Your task to perform on an android device: Open Google Maps and go to "Timeline" Image 0: 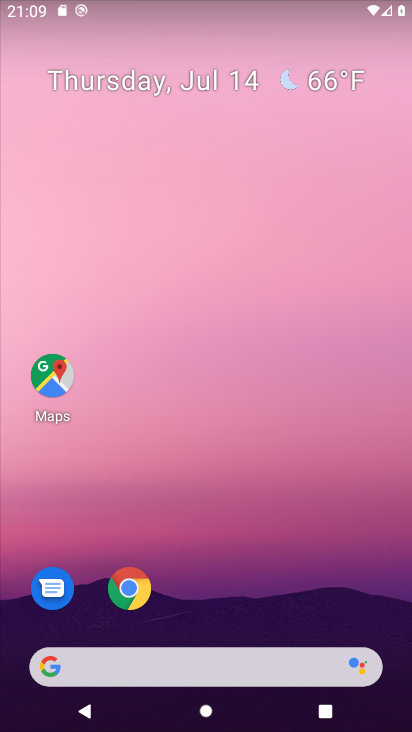
Step 0: drag from (362, 604) to (392, 79)
Your task to perform on an android device: Open Google Maps and go to "Timeline" Image 1: 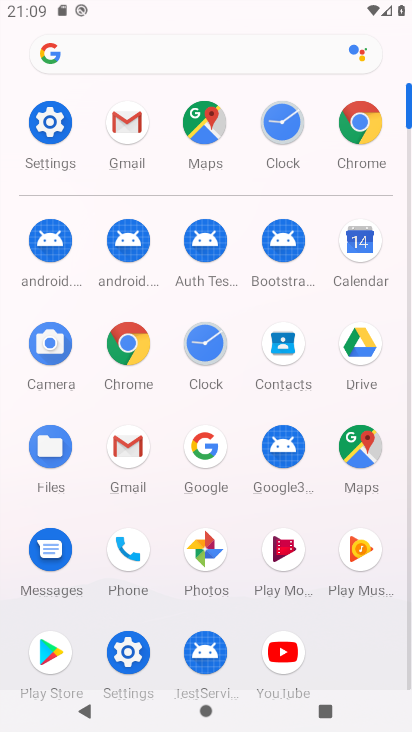
Step 1: click (359, 454)
Your task to perform on an android device: Open Google Maps and go to "Timeline" Image 2: 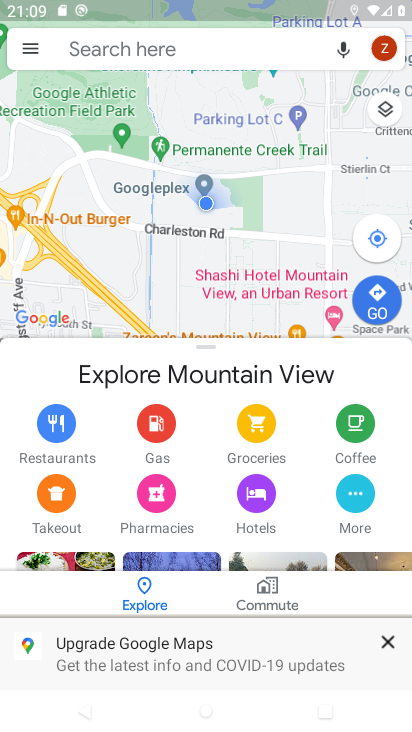
Step 2: click (33, 47)
Your task to perform on an android device: Open Google Maps and go to "Timeline" Image 3: 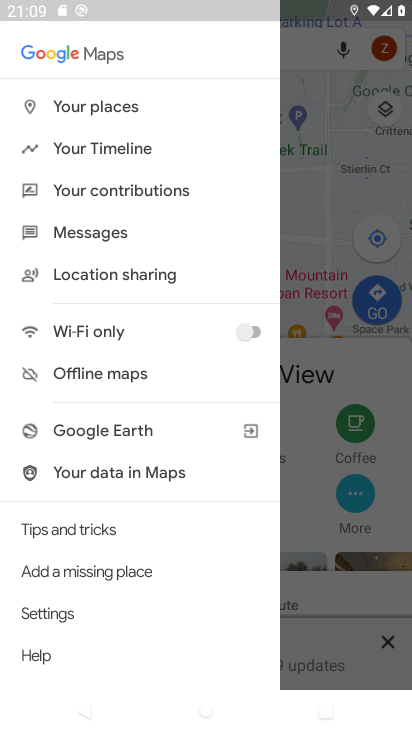
Step 3: click (137, 143)
Your task to perform on an android device: Open Google Maps and go to "Timeline" Image 4: 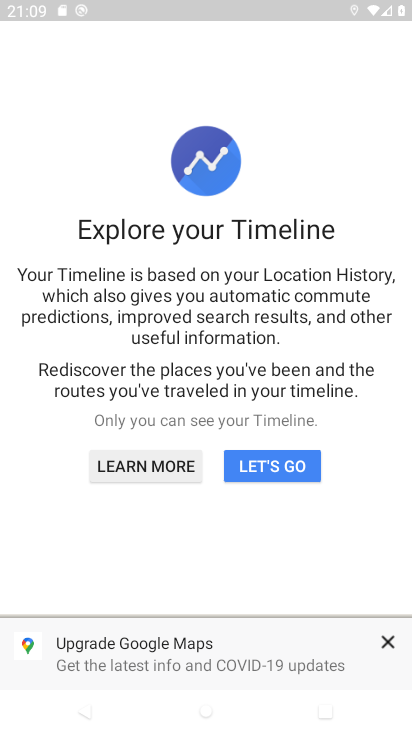
Step 4: task complete